Your task to perform on an android device: Open calendar and show me the fourth week of next month Image 0: 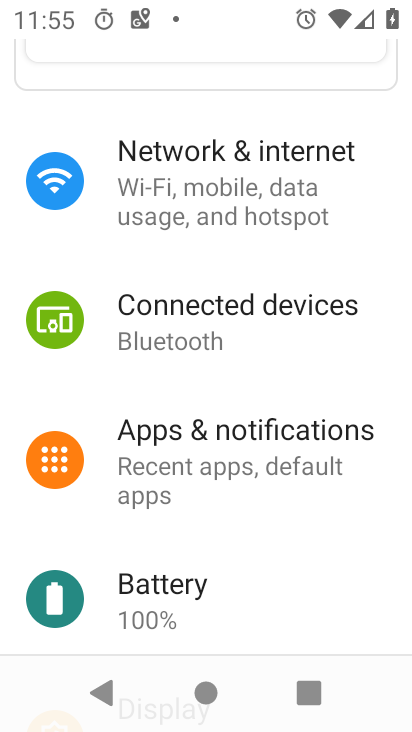
Step 0: press home button
Your task to perform on an android device: Open calendar and show me the fourth week of next month Image 1: 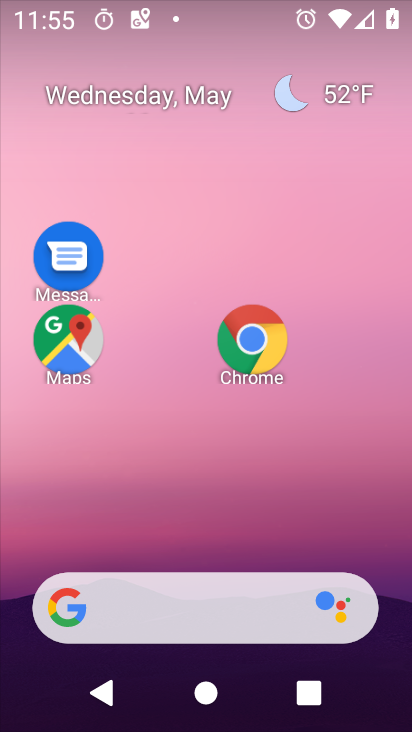
Step 1: drag from (167, 539) to (194, 126)
Your task to perform on an android device: Open calendar and show me the fourth week of next month Image 2: 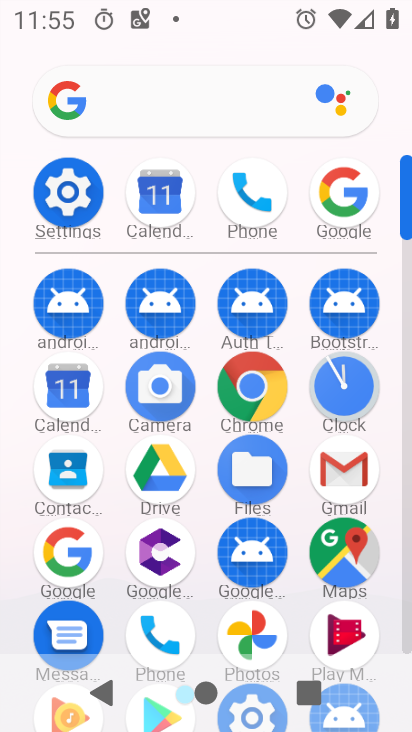
Step 2: click (80, 379)
Your task to perform on an android device: Open calendar and show me the fourth week of next month Image 3: 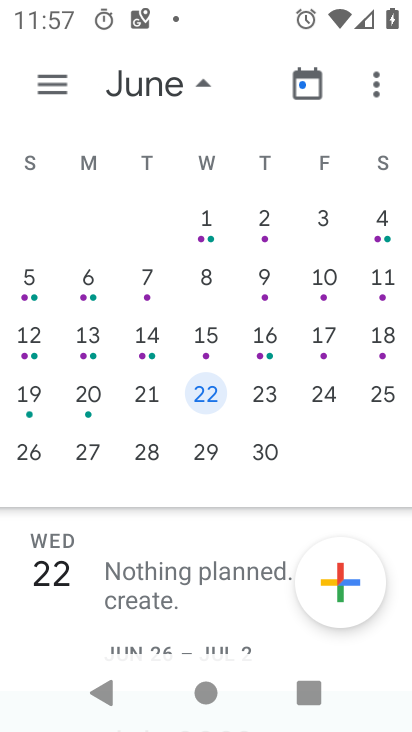
Step 3: task complete